Your task to perform on an android device: Open internet settings Image 0: 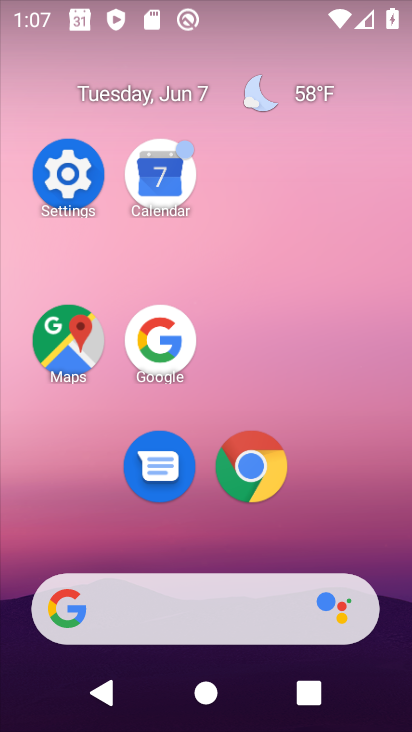
Step 0: click (79, 184)
Your task to perform on an android device: Open internet settings Image 1: 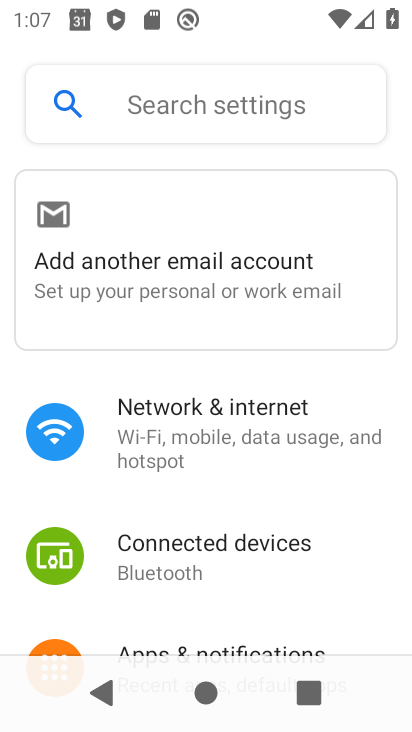
Step 1: click (227, 409)
Your task to perform on an android device: Open internet settings Image 2: 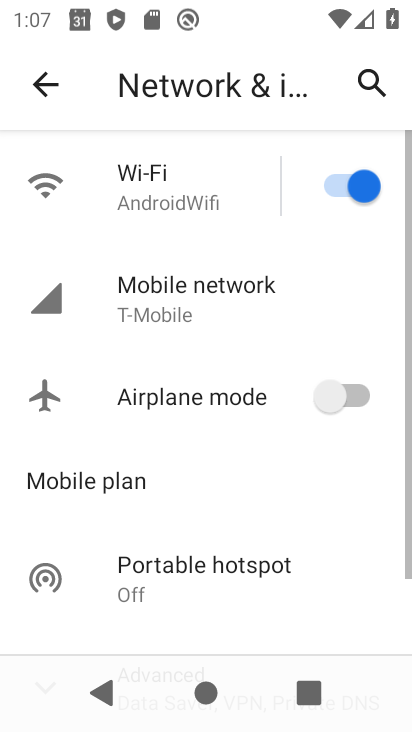
Step 2: task complete